Your task to perform on an android device: Open calendar and show me the fourth week of next month Image 0: 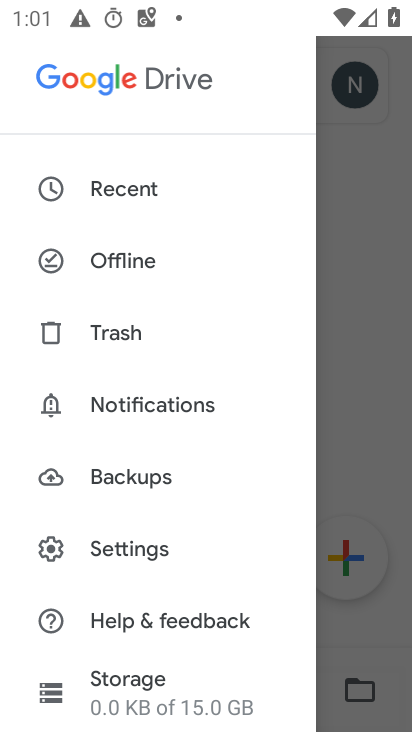
Step 0: press home button
Your task to perform on an android device: Open calendar and show me the fourth week of next month Image 1: 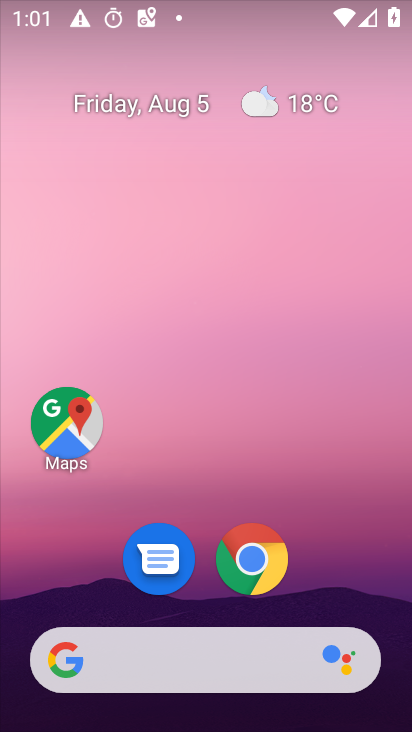
Step 1: drag from (58, 700) to (248, 56)
Your task to perform on an android device: Open calendar and show me the fourth week of next month Image 2: 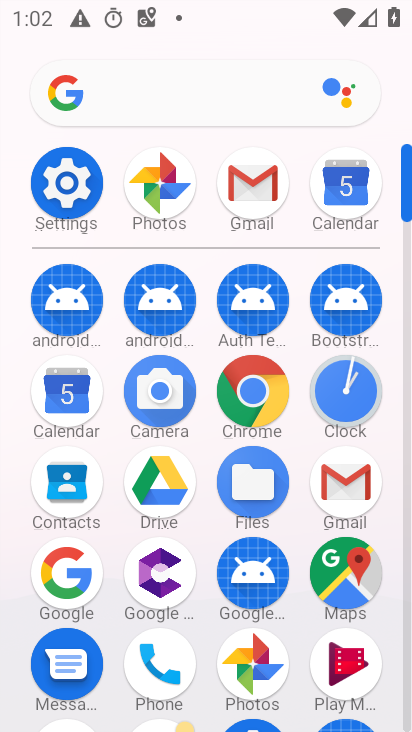
Step 2: click (319, 177)
Your task to perform on an android device: Open calendar and show me the fourth week of next month Image 3: 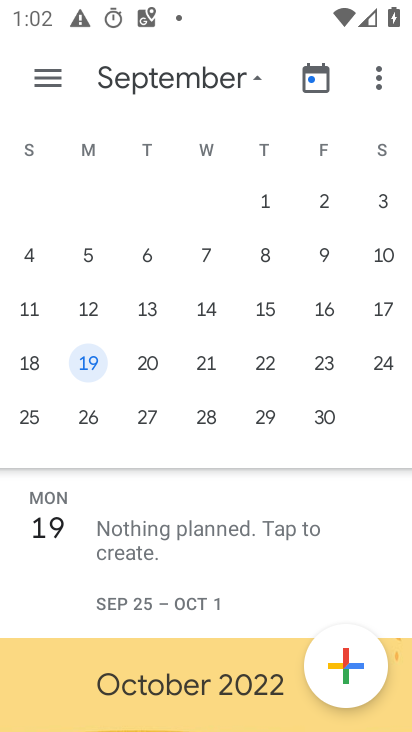
Step 3: task complete